Your task to perform on an android device: check data usage Image 0: 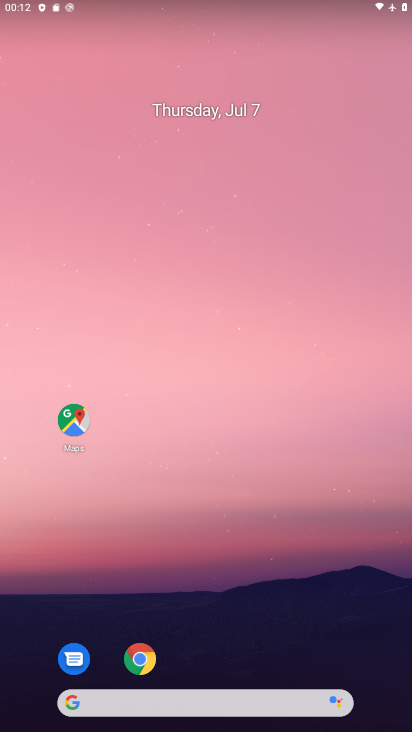
Step 0: drag from (210, 696) to (121, 240)
Your task to perform on an android device: check data usage Image 1: 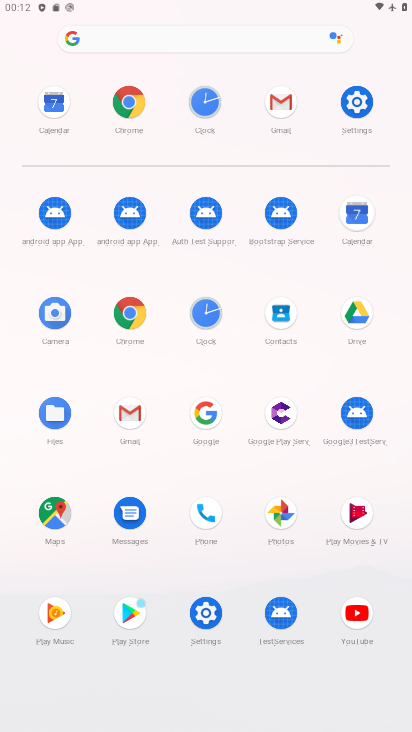
Step 1: click (358, 98)
Your task to perform on an android device: check data usage Image 2: 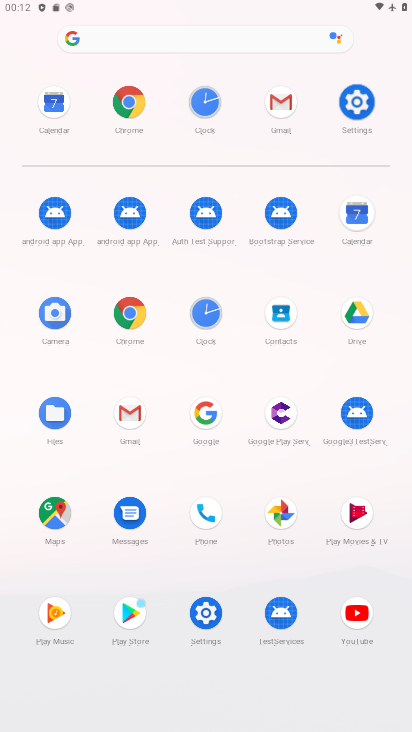
Step 2: click (365, 103)
Your task to perform on an android device: check data usage Image 3: 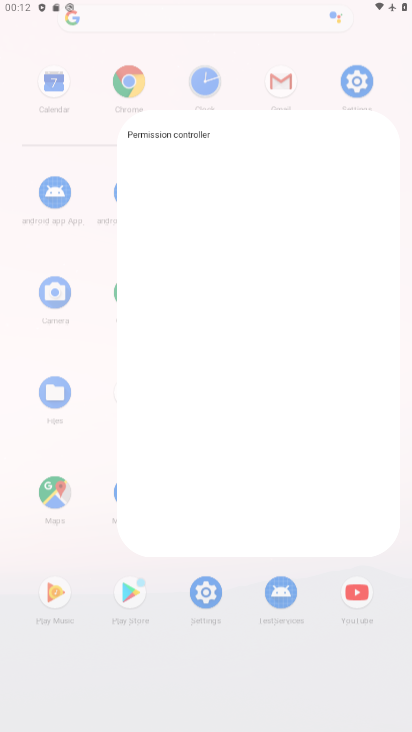
Step 3: click (363, 106)
Your task to perform on an android device: check data usage Image 4: 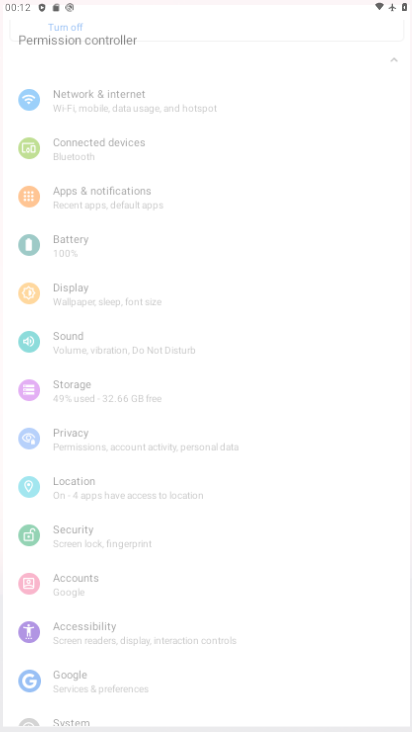
Step 4: click (357, 108)
Your task to perform on an android device: check data usage Image 5: 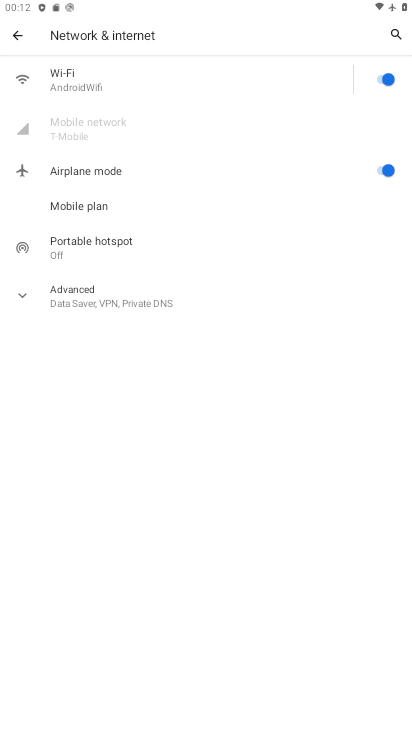
Step 5: click (17, 37)
Your task to perform on an android device: check data usage Image 6: 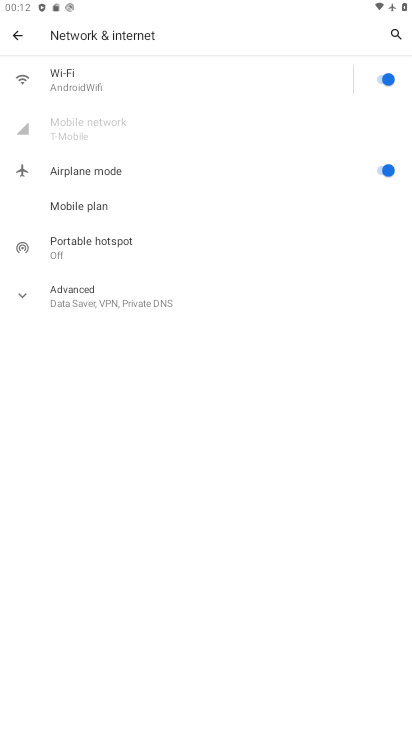
Step 6: click (87, 163)
Your task to perform on an android device: check data usage Image 7: 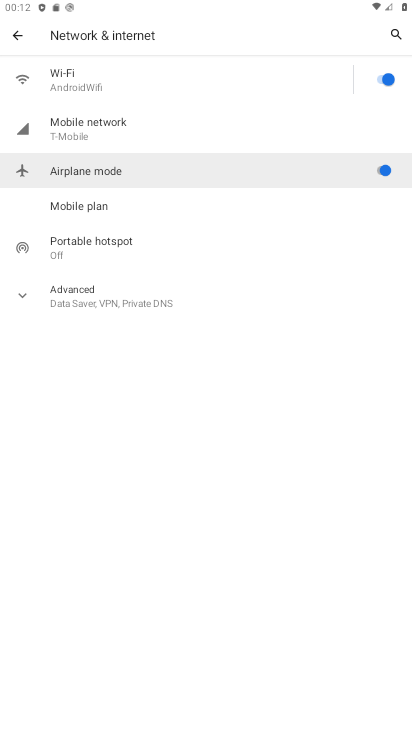
Step 7: click (88, 164)
Your task to perform on an android device: check data usage Image 8: 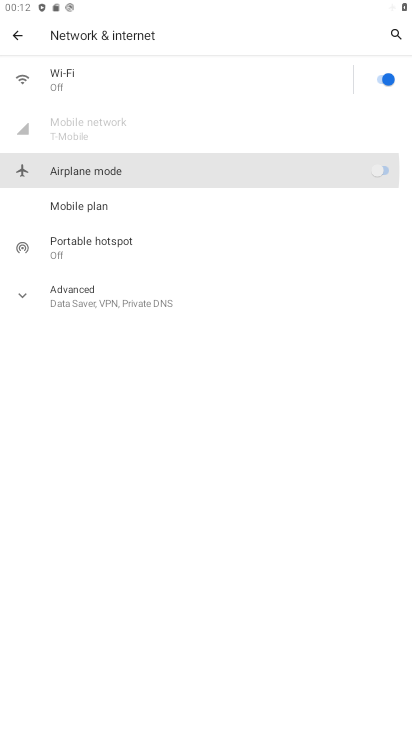
Step 8: click (90, 165)
Your task to perform on an android device: check data usage Image 9: 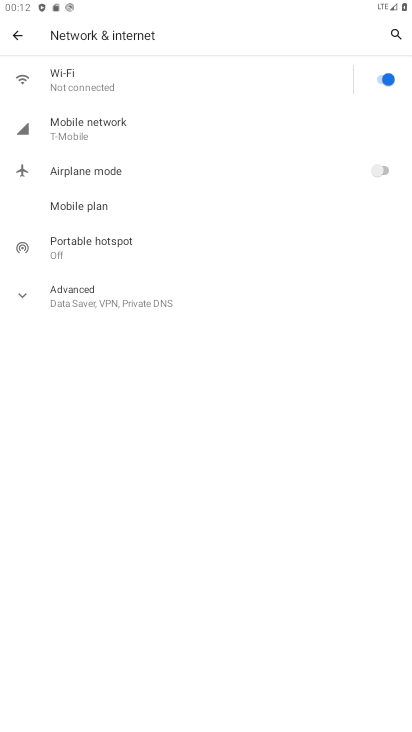
Step 9: click (72, 134)
Your task to perform on an android device: check data usage Image 10: 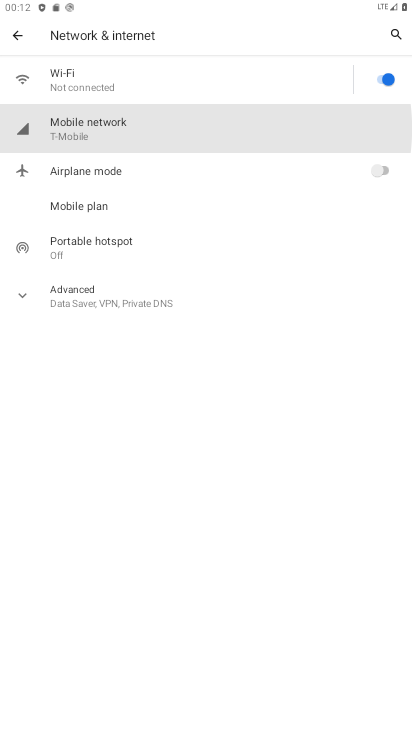
Step 10: click (73, 136)
Your task to perform on an android device: check data usage Image 11: 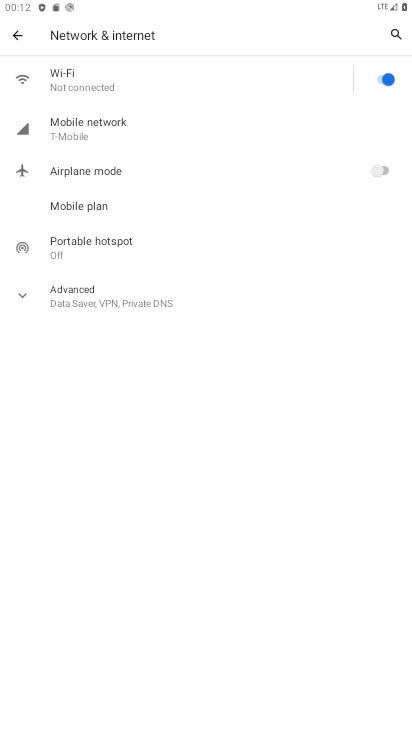
Step 11: click (85, 145)
Your task to perform on an android device: check data usage Image 12: 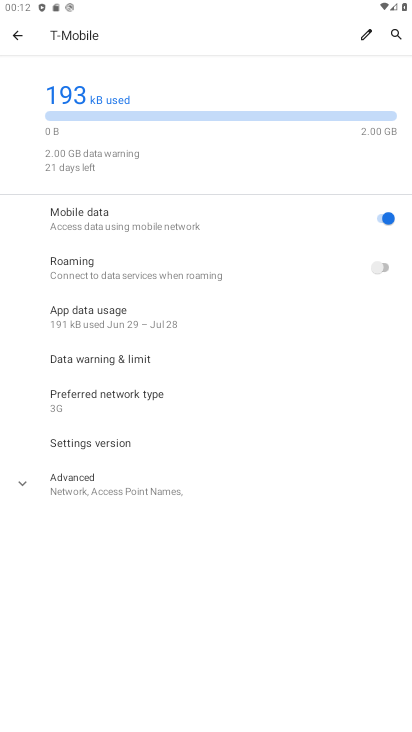
Step 12: task complete